Your task to perform on an android device: Check the weather Image 0: 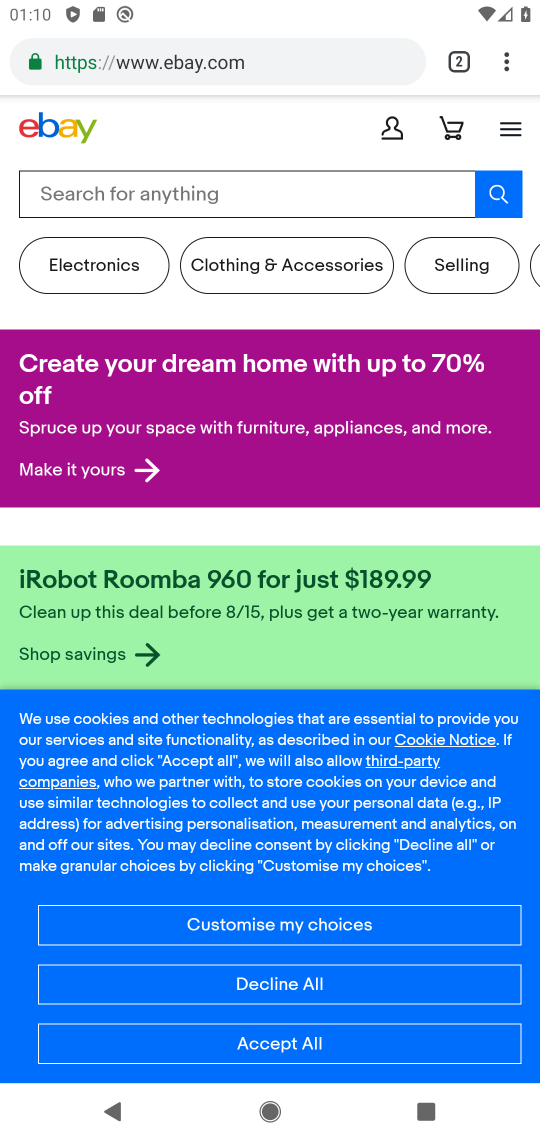
Step 0: press home button
Your task to perform on an android device: Check the weather Image 1: 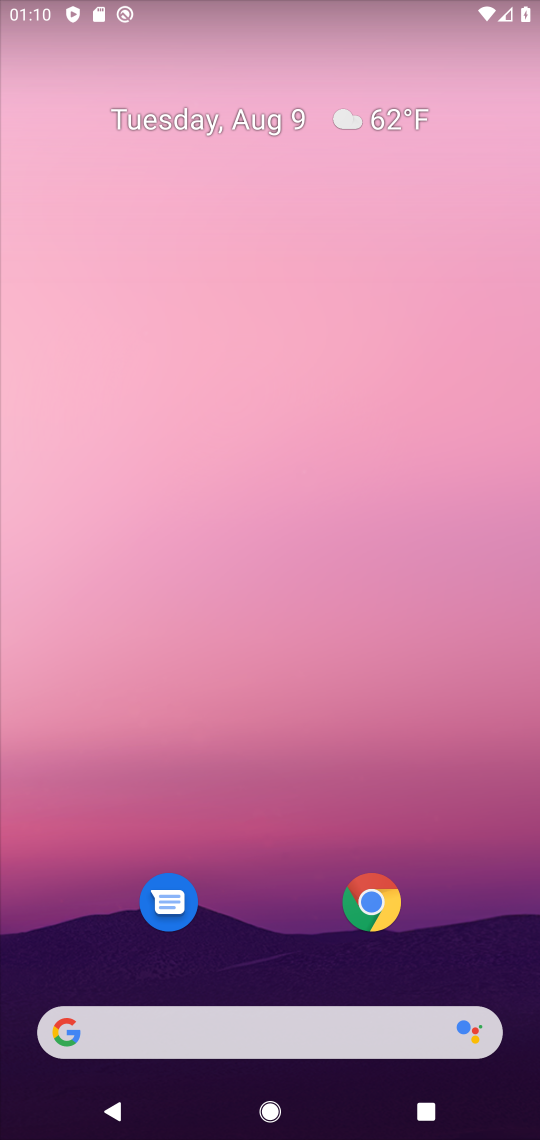
Step 1: drag from (251, 1004) to (289, 456)
Your task to perform on an android device: Check the weather Image 2: 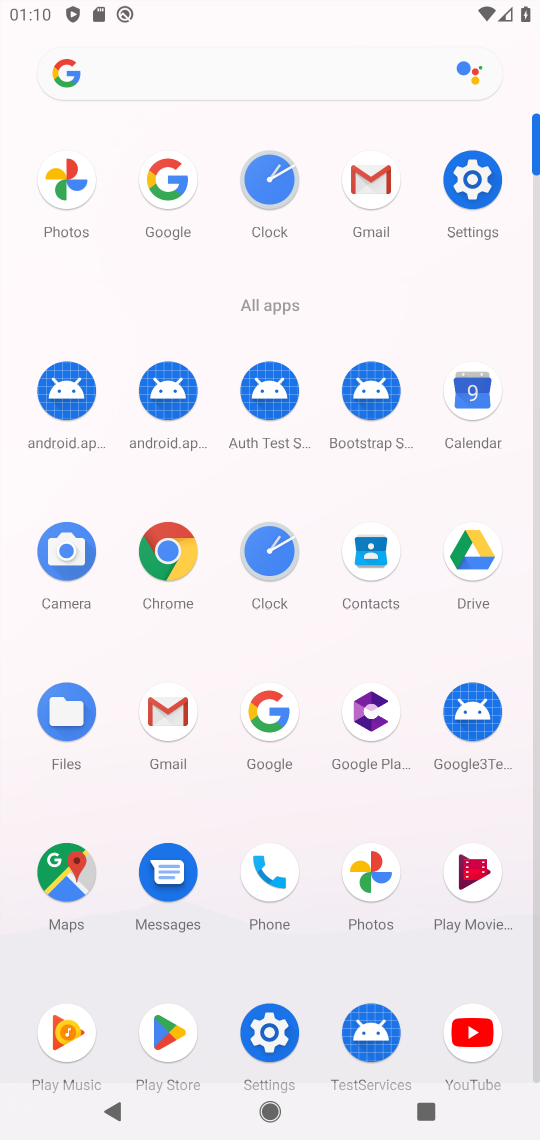
Step 2: click (272, 712)
Your task to perform on an android device: Check the weather Image 3: 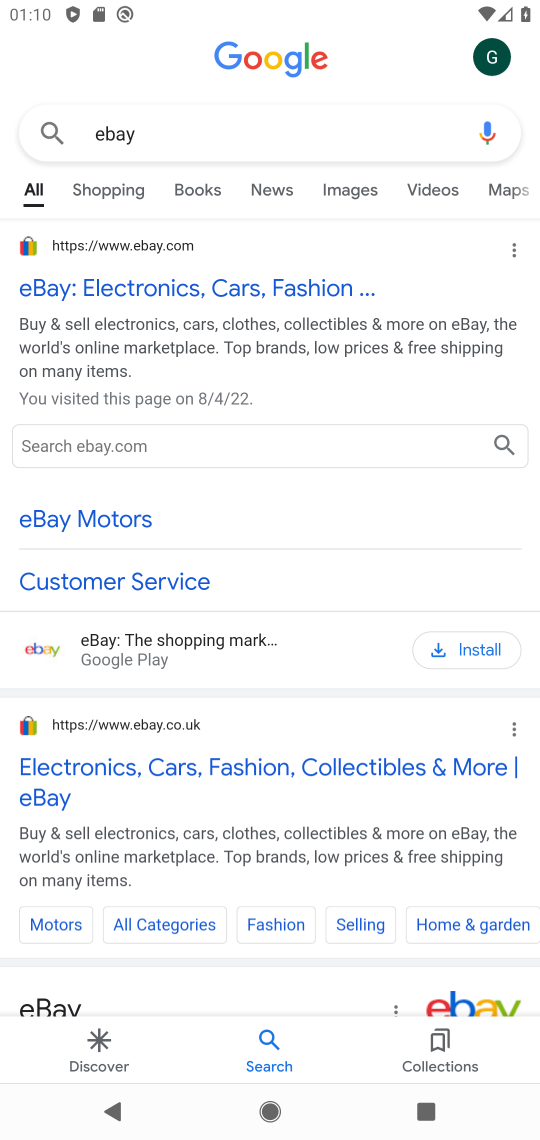
Step 3: click (126, 139)
Your task to perform on an android device: Check the weather Image 4: 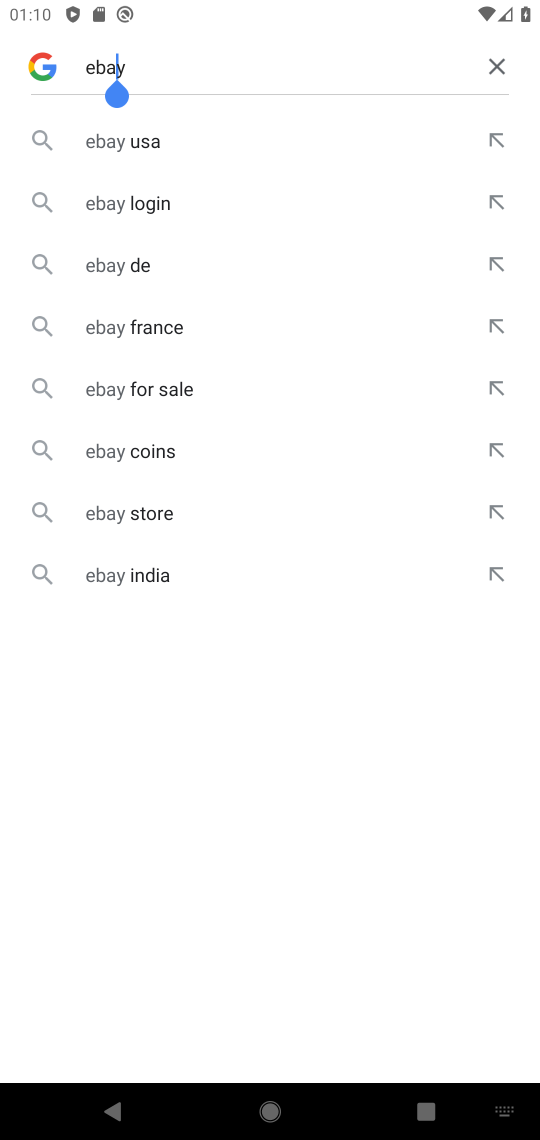
Step 4: click (479, 66)
Your task to perform on an android device: Check the weather Image 5: 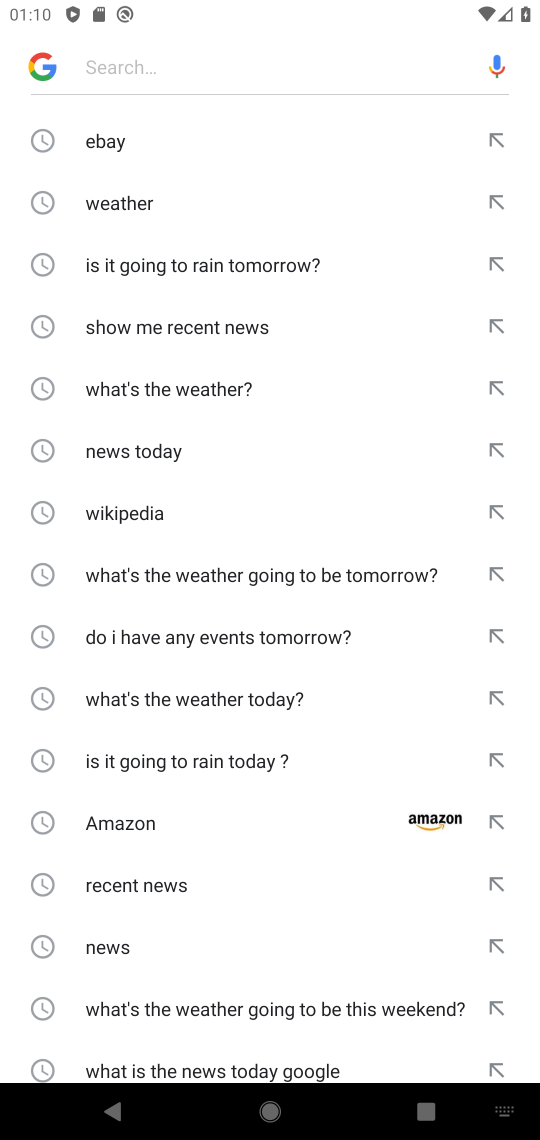
Step 5: click (132, 191)
Your task to perform on an android device: Check the weather Image 6: 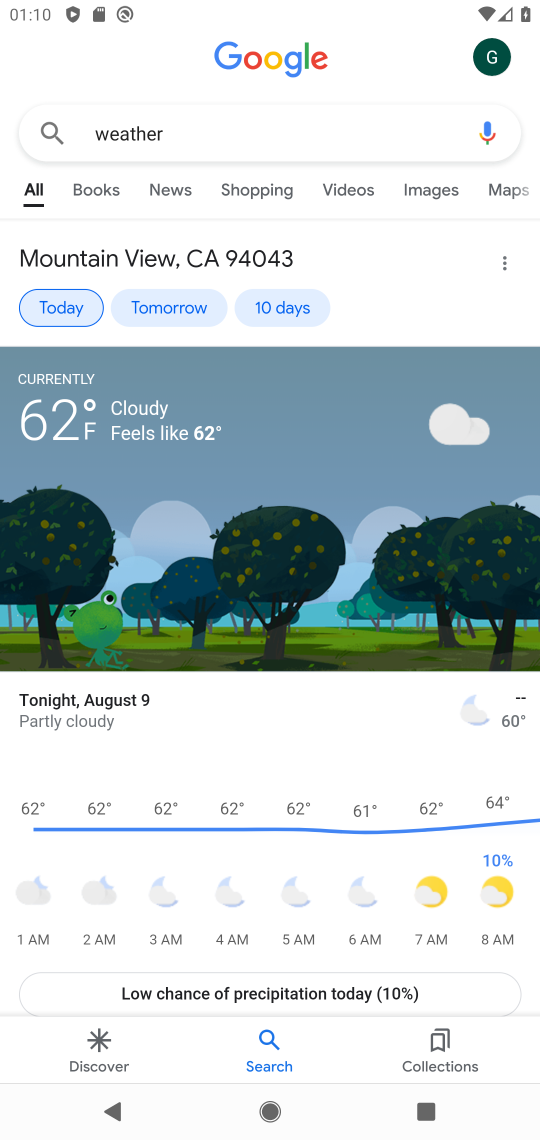
Step 6: task complete